Your task to perform on an android device: turn notification dots off Image 0: 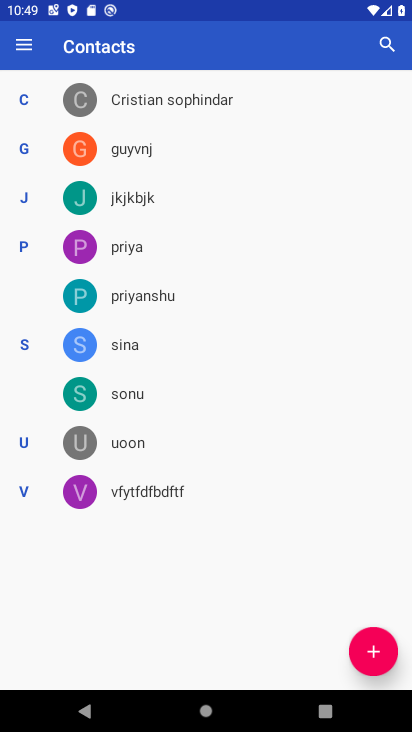
Step 0: press home button
Your task to perform on an android device: turn notification dots off Image 1: 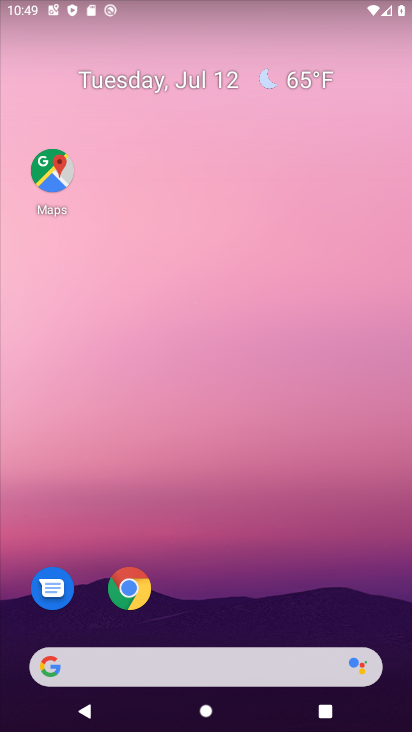
Step 1: drag from (65, 714) to (82, 152)
Your task to perform on an android device: turn notification dots off Image 2: 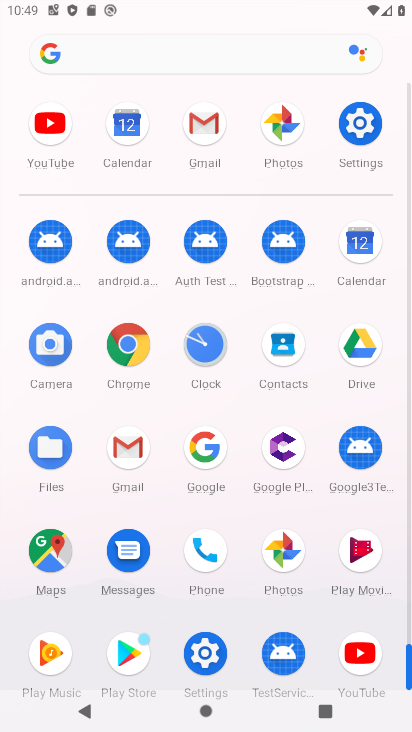
Step 2: click (226, 650)
Your task to perform on an android device: turn notification dots off Image 3: 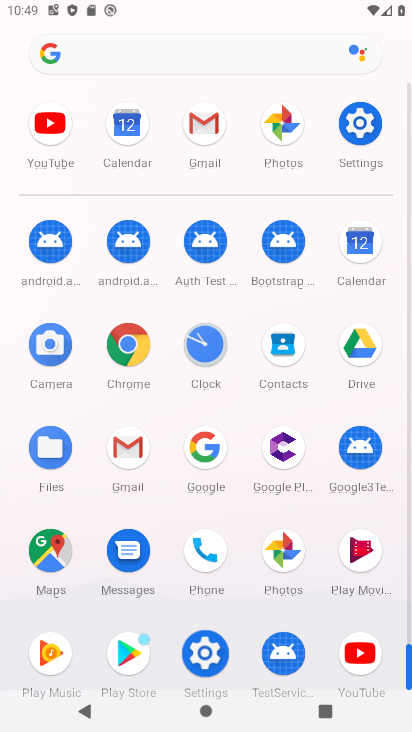
Step 3: click (206, 648)
Your task to perform on an android device: turn notification dots off Image 4: 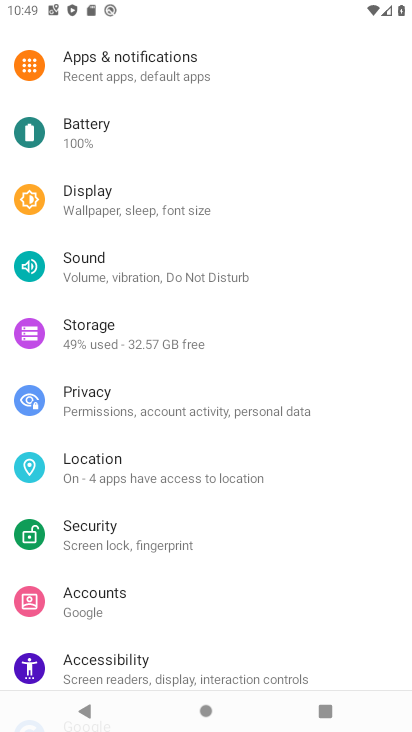
Step 4: click (152, 49)
Your task to perform on an android device: turn notification dots off Image 5: 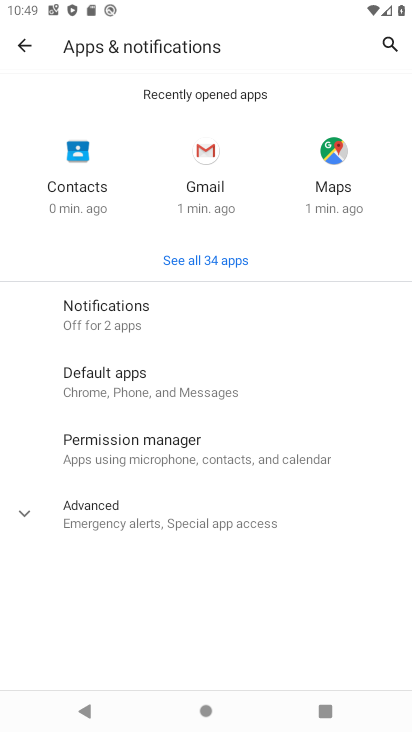
Step 5: click (132, 501)
Your task to perform on an android device: turn notification dots off Image 6: 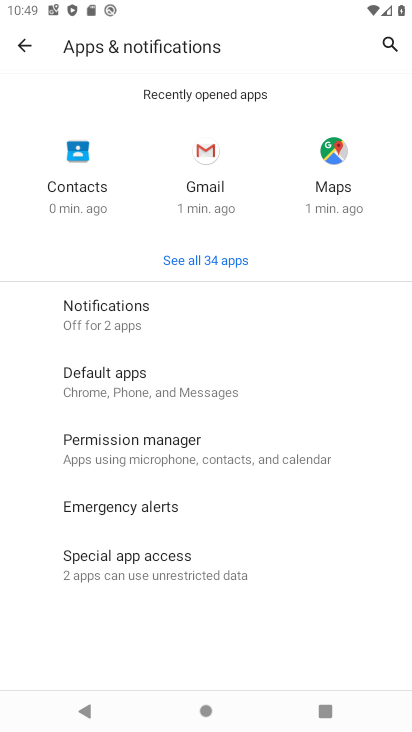
Step 6: click (152, 311)
Your task to perform on an android device: turn notification dots off Image 7: 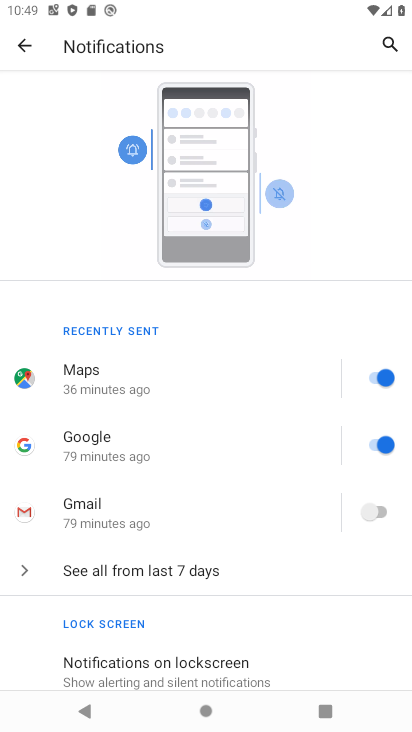
Step 7: drag from (271, 526) to (264, 218)
Your task to perform on an android device: turn notification dots off Image 8: 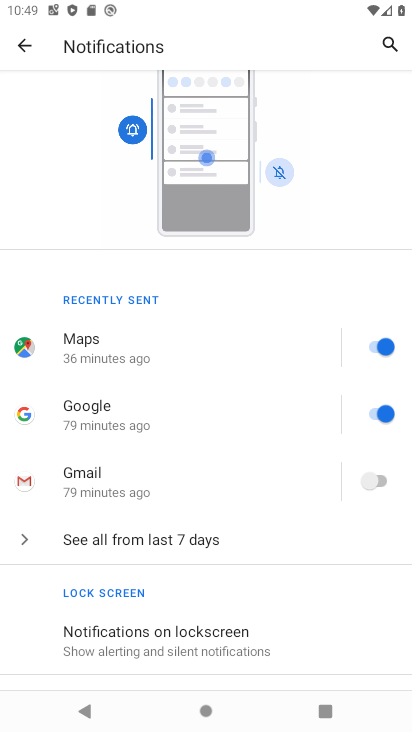
Step 8: drag from (282, 655) to (263, 164)
Your task to perform on an android device: turn notification dots off Image 9: 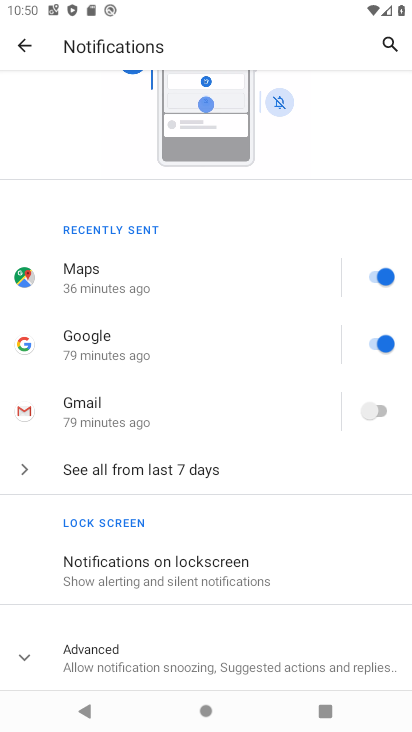
Step 9: drag from (272, 574) to (308, 346)
Your task to perform on an android device: turn notification dots off Image 10: 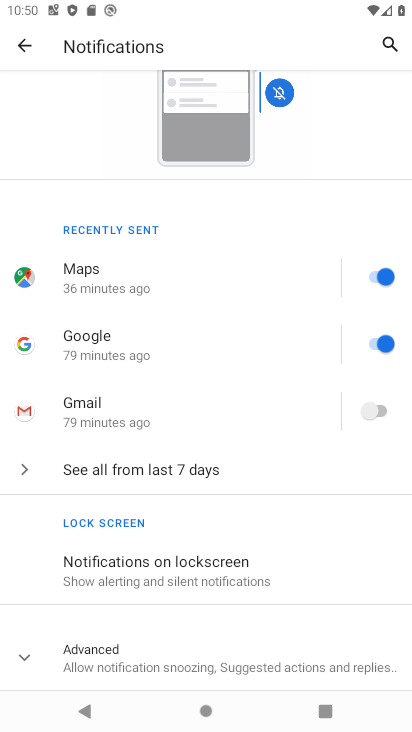
Step 10: drag from (294, 643) to (331, 295)
Your task to perform on an android device: turn notification dots off Image 11: 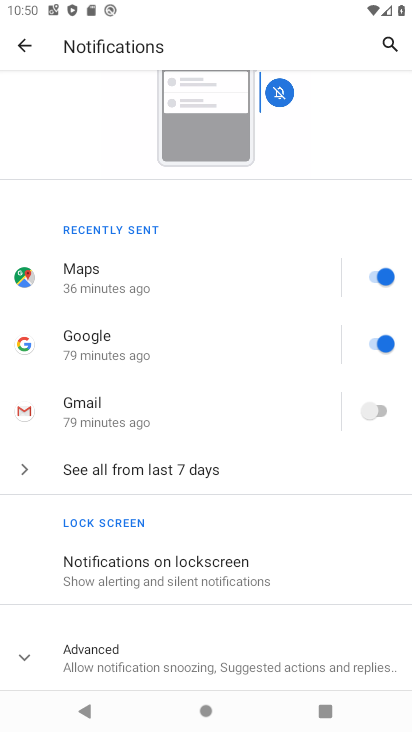
Step 11: click (226, 649)
Your task to perform on an android device: turn notification dots off Image 12: 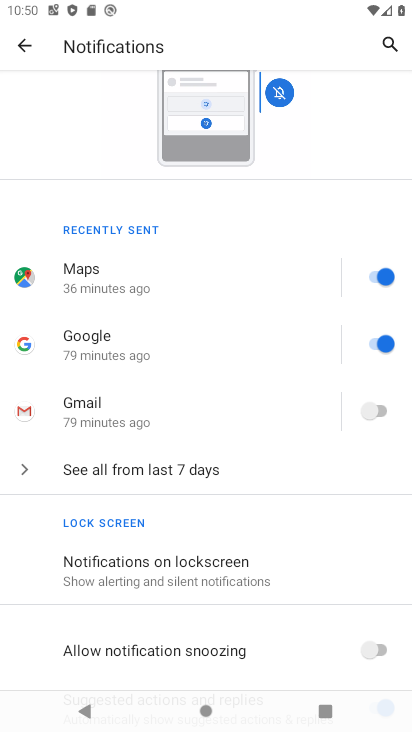
Step 12: drag from (37, 616) to (27, 244)
Your task to perform on an android device: turn notification dots off Image 13: 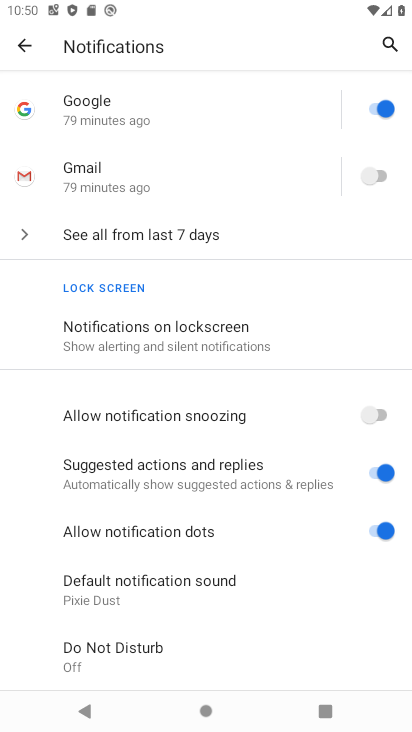
Step 13: click (403, 536)
Your task to perform on an android device: turn notification dots off Image 14: 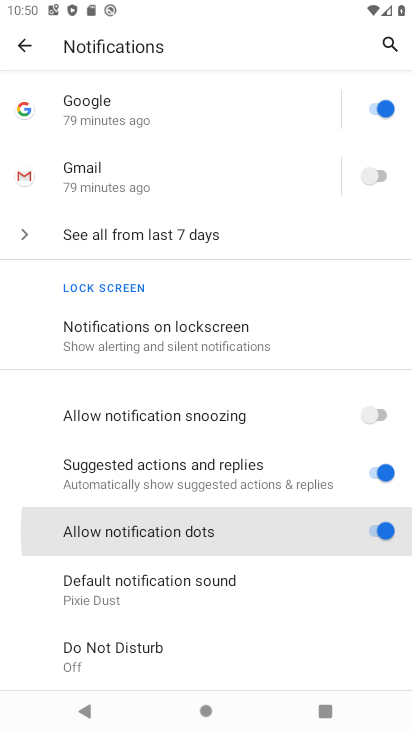
Step 14: click (402, 536)
Your task to perform on an android device: turn notification dots off Image 15: 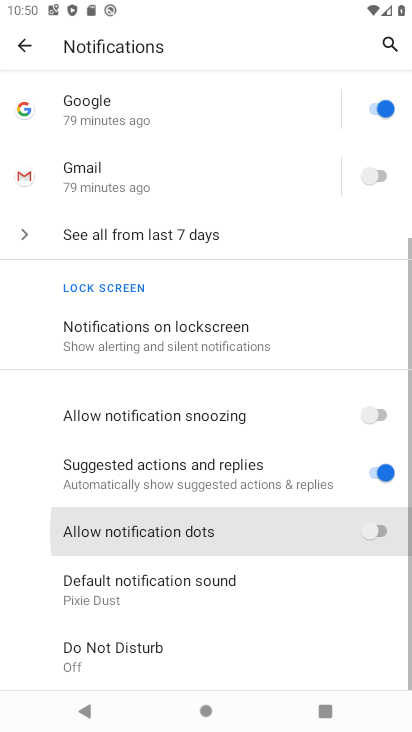
Step 15: click (362, 517)
Your task to perform on an android device: turn notification dots off Image 16: 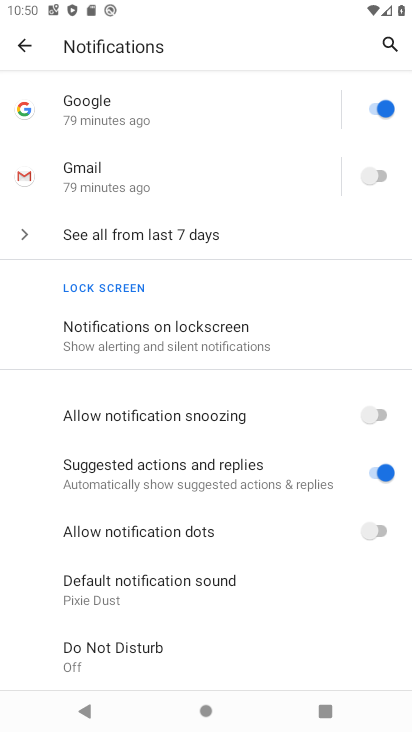
Step 16: task complete